Your task to perform on an android device: open a bookmark in the chrome app Image 0: 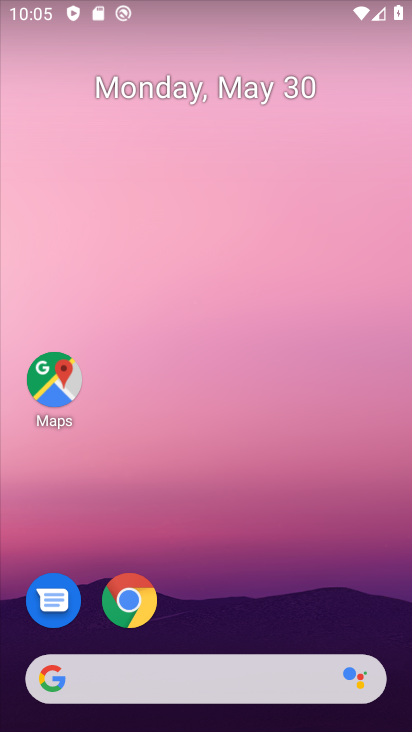
Step 0: click (141, 611)
Your task to perform on an android device: open a bookmark in the chrome app Image 1: 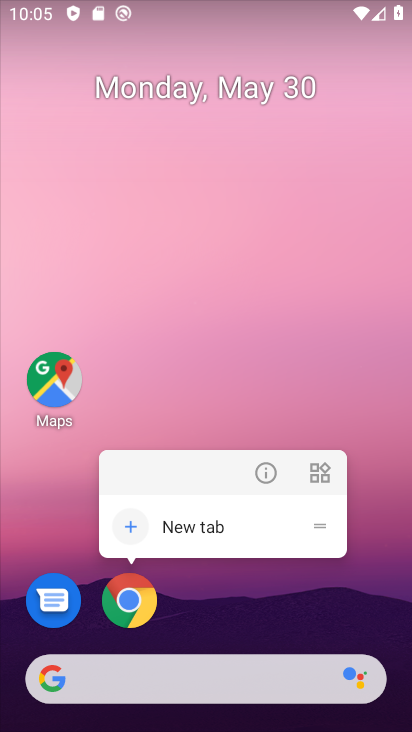
Step 1: click (133, 611)
Your task to perform on an android device: open a bookmark in the chrome app Image 2: 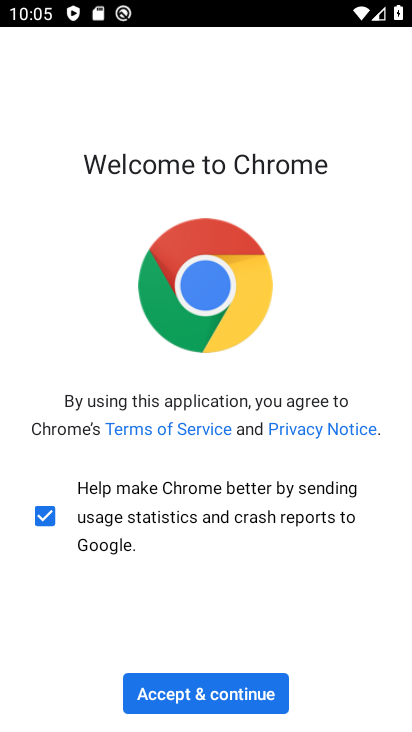
Step 2: click (228, 699)
Your task to perform on an android device: open a bookmark in the chrome app Image 3: 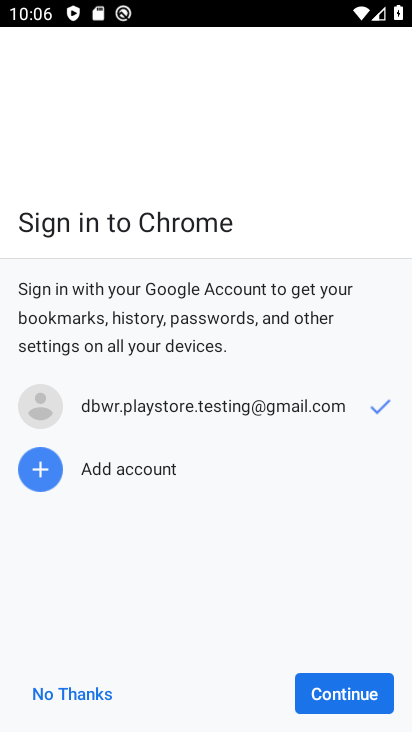
Step 3: click (349, 701)
Your task to perform on an android device: open a bookmark in the chrome app Image 4: 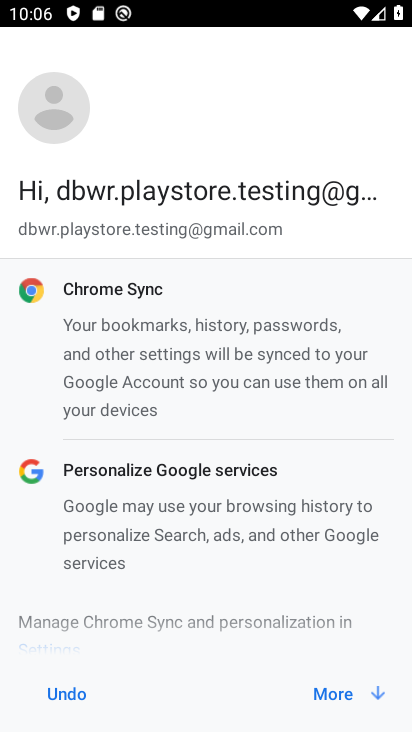
Step 4: click (347, 700)
Your task to perform on an android device: open a bookmark in the chrome app Image 5: 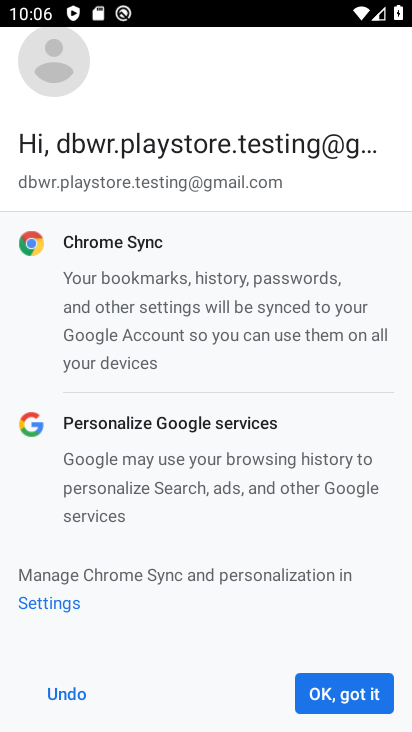
Step 5: click (346, 700)
Your task to perform on an android device: open a bookmark in the chrome app Image 6: 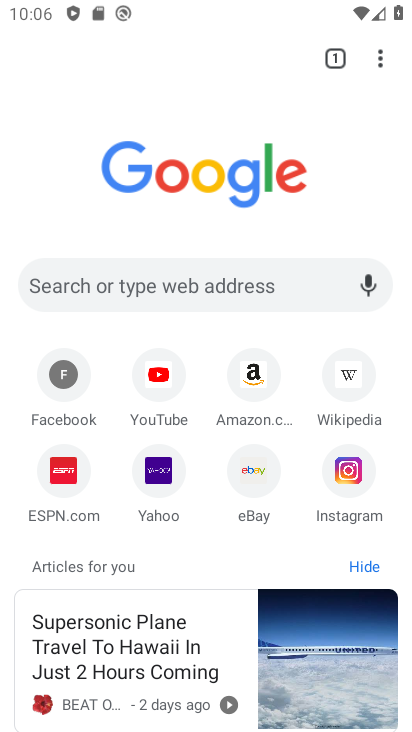
Step 6: task complete